Your task to perform on an android device: What's the weather going to be this weekend? Image 0: 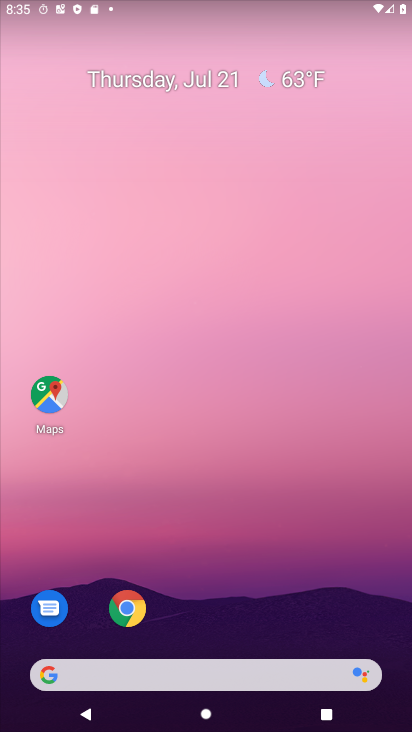
Step 0: click (136, 611)
Your task to perform on an android device: What's the weather going to be this weekend? Image 1: 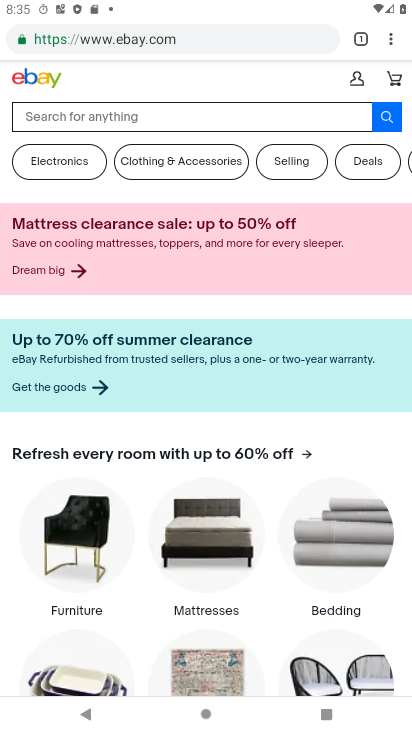
Step 1: click (101, 43)
Your task to perform on an android device: What's the weather going to be this weekend? Image 2: 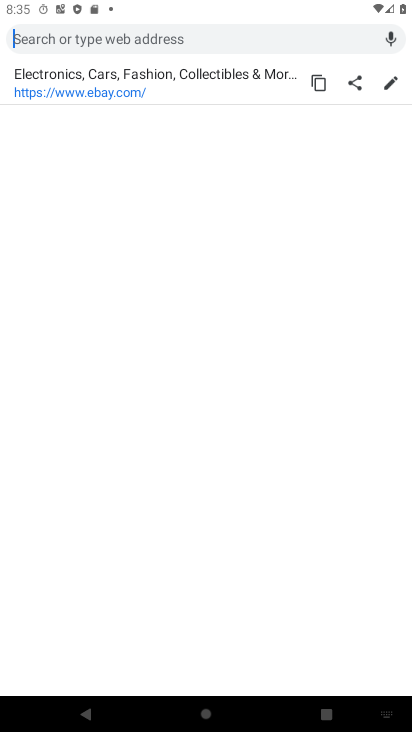
Step 2: type "What's the weather going to be this weekend?"
Your task to perform on an android device: What's the weather going to be this weekend? Image 3: 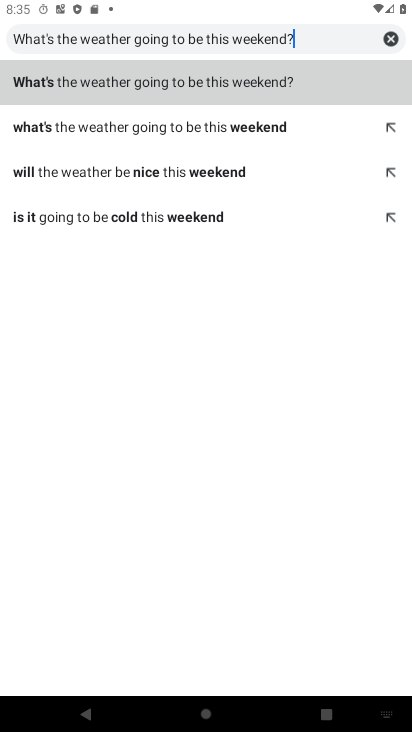
Step 3: type ""
Your task to perform on an android device: What's the weather going to be this weekend? Image 4: 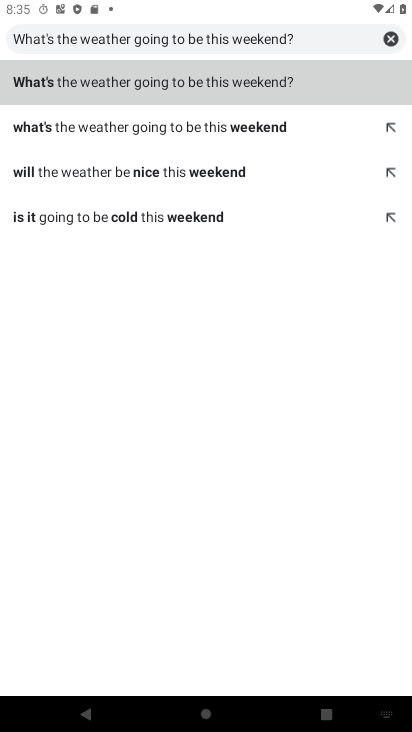
Step 4: click (145, 80)
Your task to perform on an android device: What's the weather going to be this weekend? Image 5: 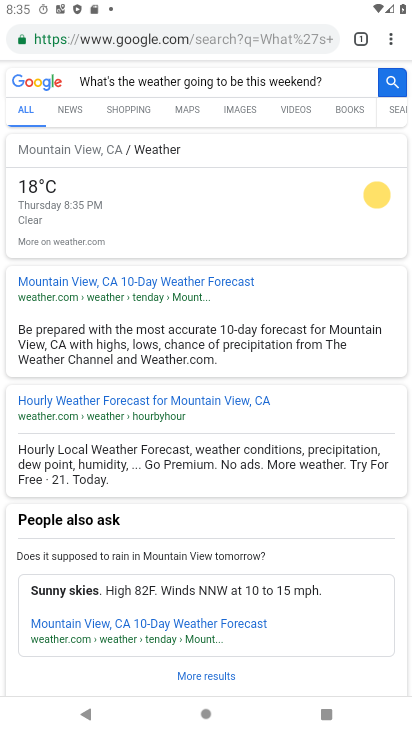
Step 5: task complete